Your task to perform on an android device: turn on translation in the chrome app Image 0: 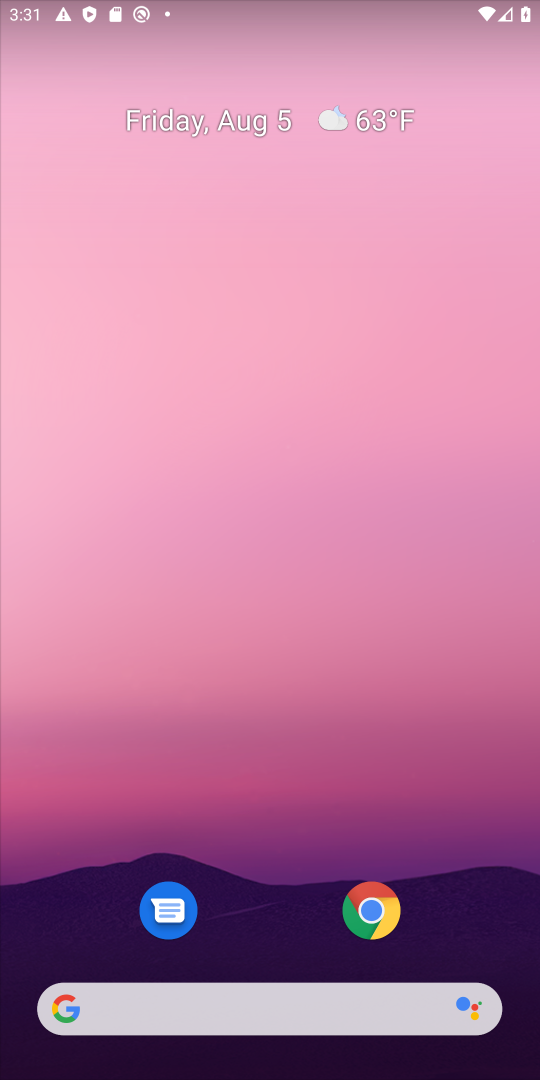
Step 0: drag from (279, 927) to (262, 396)
Your task to perform on an android device: turn on translation in the chrome app Image 1: 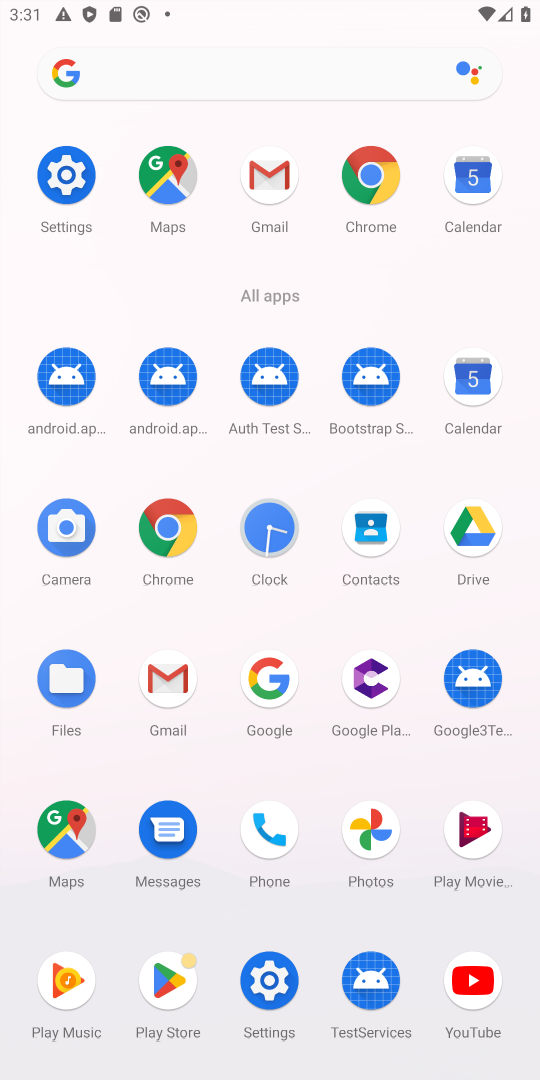
Step 1: click (350, 190)
Your task to perform on an android device: turn on translation in the chrome app Image 2: 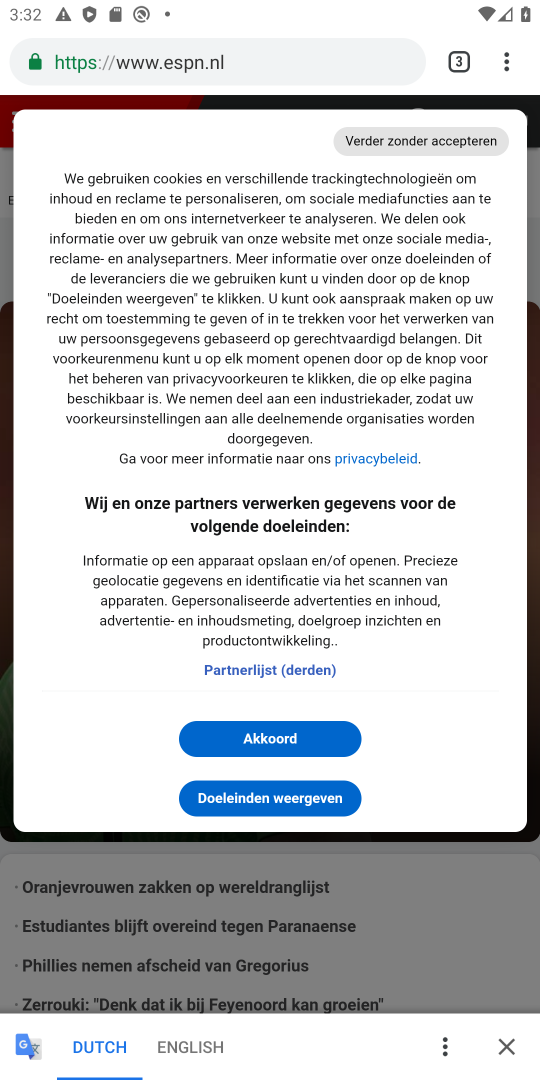
Step 2: click (505, 63)
Your task to perform on an android device: turn on translation in the chrome app Image 3: 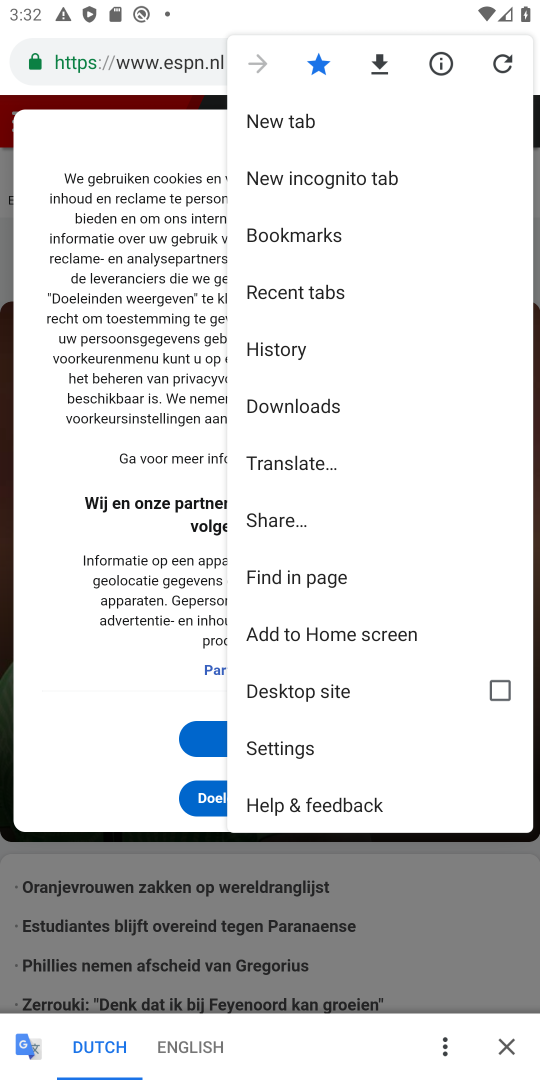
Step 3: click (300, 746)
Your task to perform on an android device: turn on translation in the chrome app Image 4: 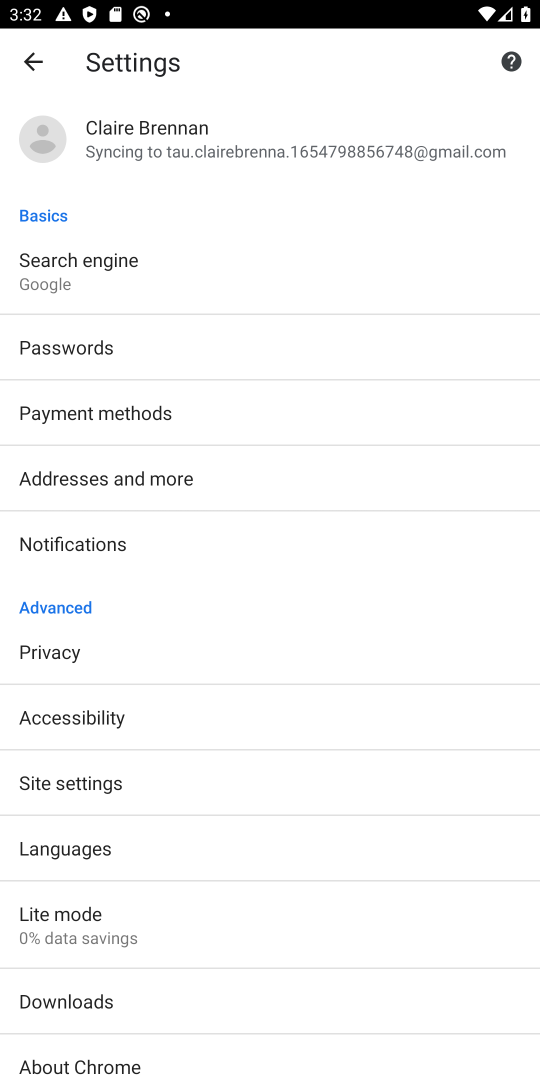
Step 4: click (186, 836)
Your task to perform on an android device: turn on translation in the chrome app Image 5: 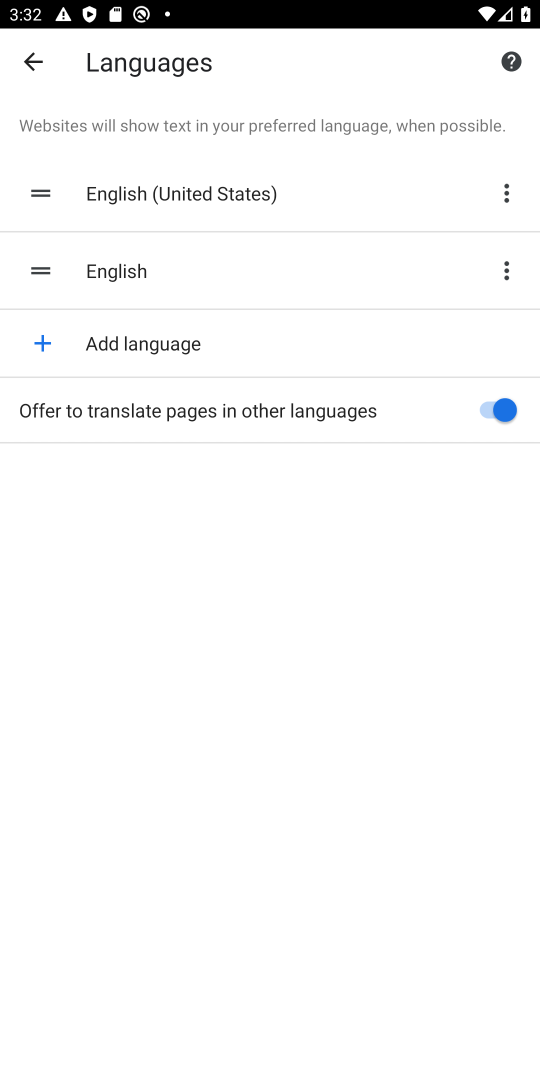
Step 5: task complete